Your task to perform on an android device: Show me popular games on the Play Store Image 0: 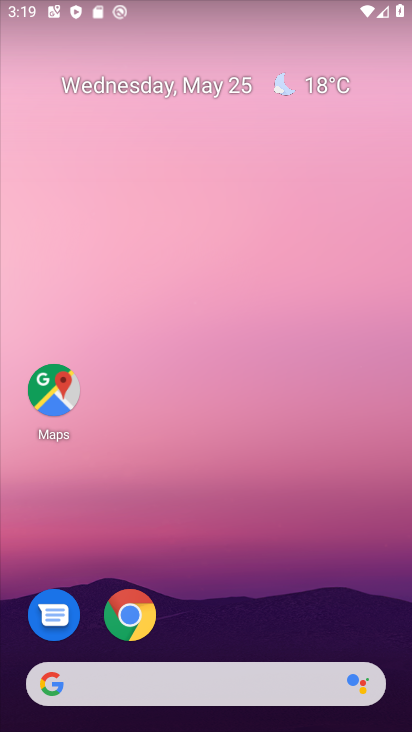
Step 0: drag from (310, 614) to (261, 1)
Your task to perform on an android device: Show me popular games on the Play Store Image 1: 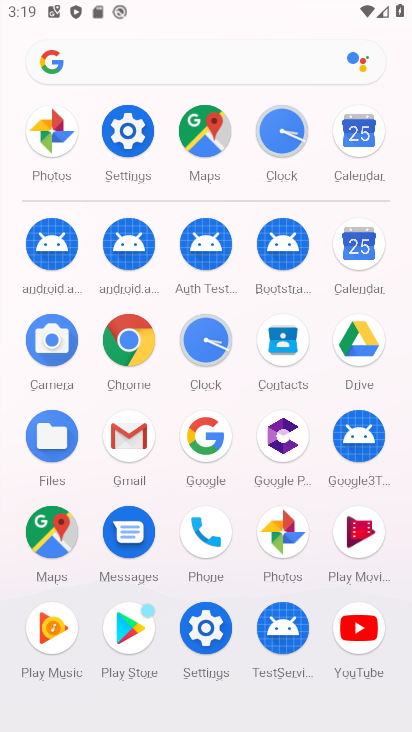
Step 1: click (109, 623)
Your task to perform on an android device: Show me popular games on the Play Store Image 2: 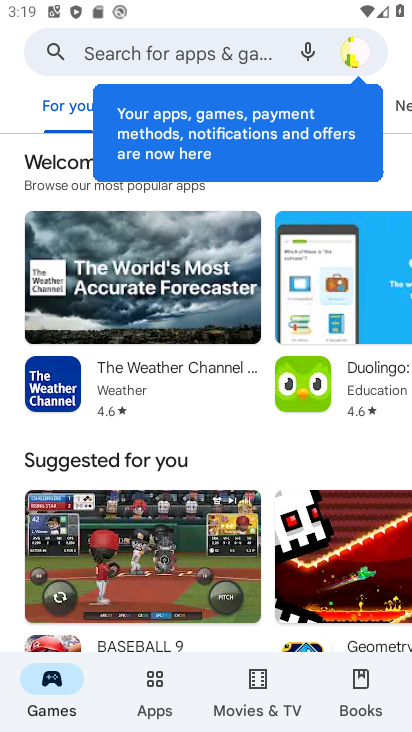
Step 2: drag from (199, 541) to (169, 433)
Your task to perform on an android device: Show me popular games on the Play Store Image 3: 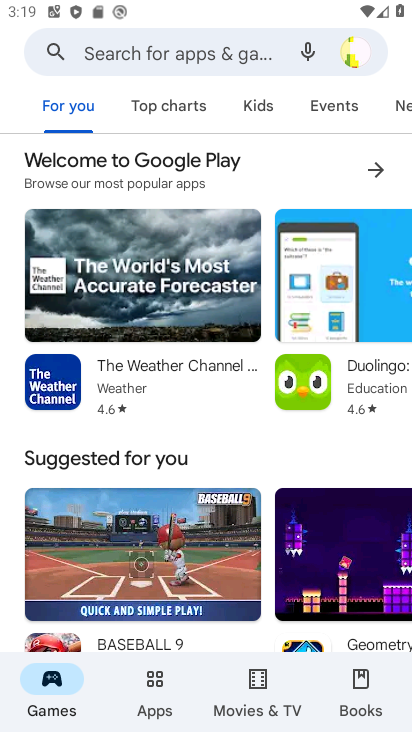
Step 3: click (165, 106)
Your task to perform on an android device: Show me popular games on the Play Store Image 4: 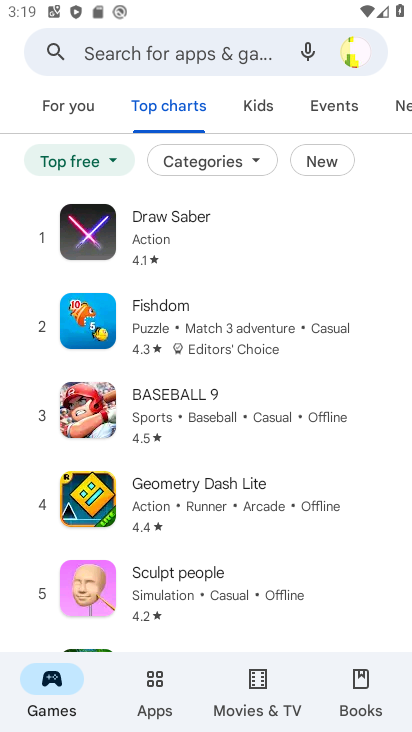
Step 4: task complete